Your task to perform on an android device: toggle airplane mode Image 0: 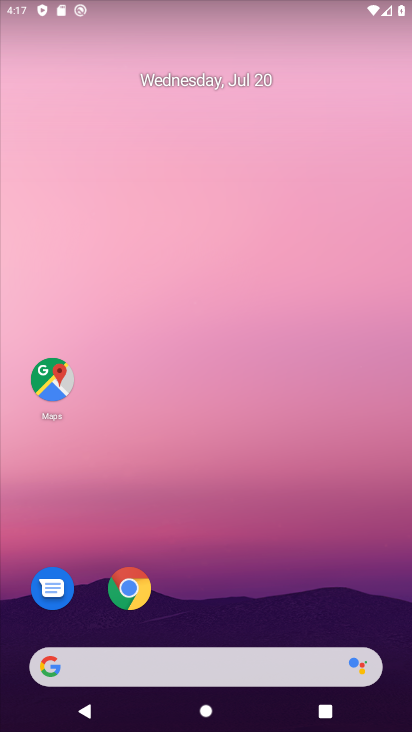
Step 0: drag from (221, 609) to (285, 98)
Your task to perform on an android device: toggle airplane mode Image 1: 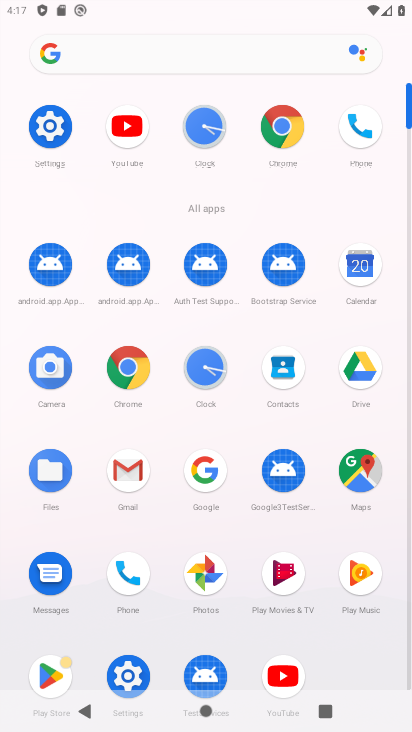
Step 1: click (49, 128)
Your task to perform on an android device: toggle airplane mode Image 2: 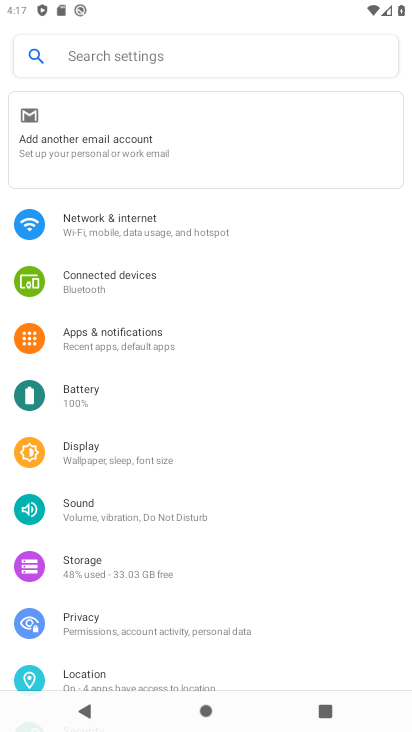
Step 2: drag from (227, 8) to (242, 322)
Your task to perform on an android device: toggle airplane mode Image 3: 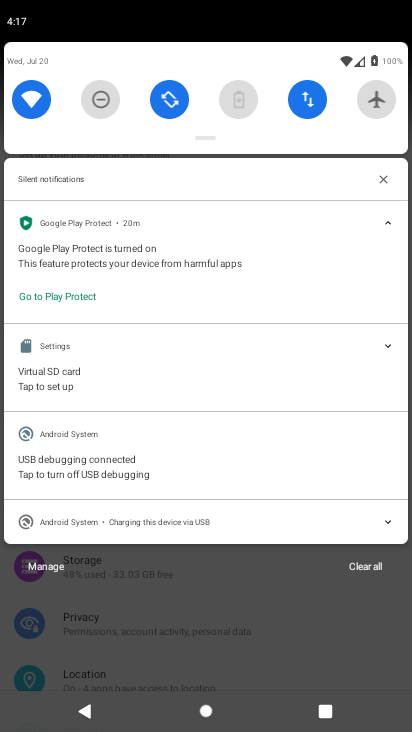
Step 3: click (377, 100)
Your task to perform on an android device: toggle airplane mode Image 4: 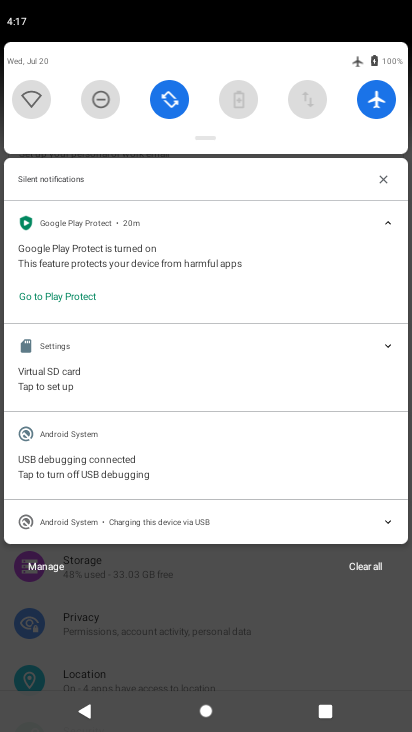
Step 4: task complete